Your task to perform on an android device: Go to privacy settings Image 0: 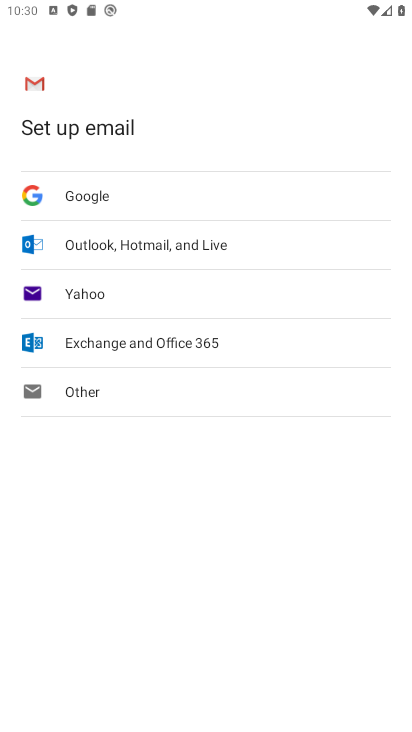
Step 0: press home button
Your task to perform on an android device: Go to privacy settings Image 1: 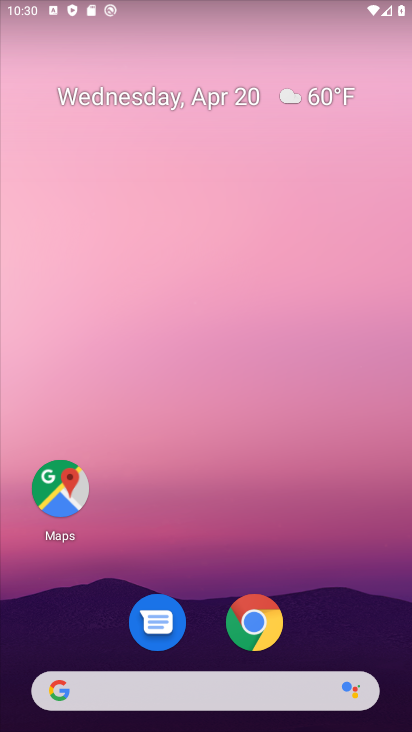
Step 1: drag from (386, 593) to (373, 48)
Your task to perform on an android device: Go to privacy settings Image 2: 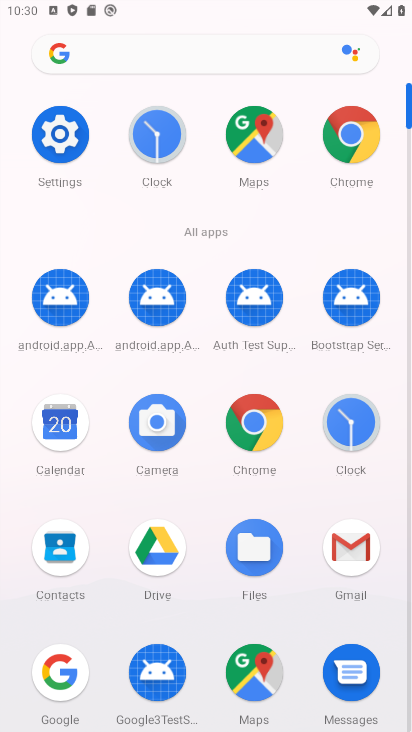
Step 2: click (67, 136)
Your task to perform on an android device: Go to privacy settings Image 3: 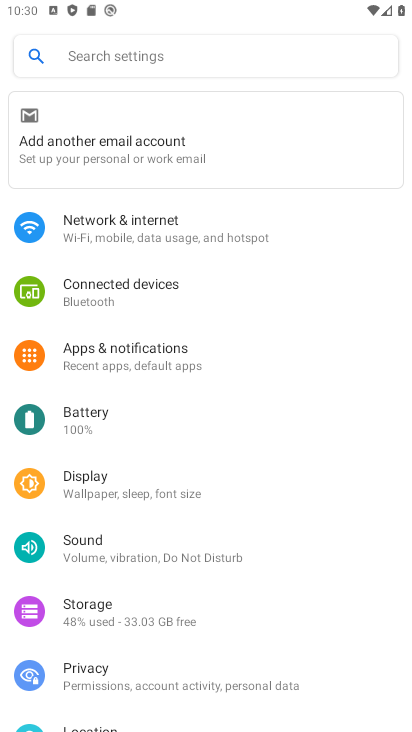
Step 3: drag from (181, 596) to (227, 285)
Your task to perform on an android device: Go to privacy settings Image 4: 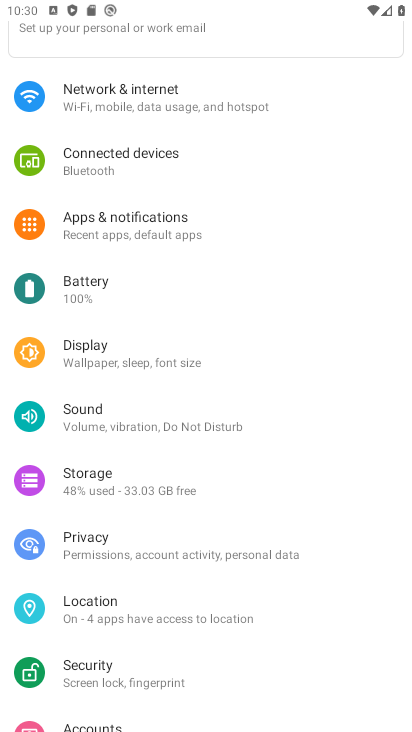
Step 4: click (123, 546)
Your task to perform on an android device: Go to privacy settings Image 5: 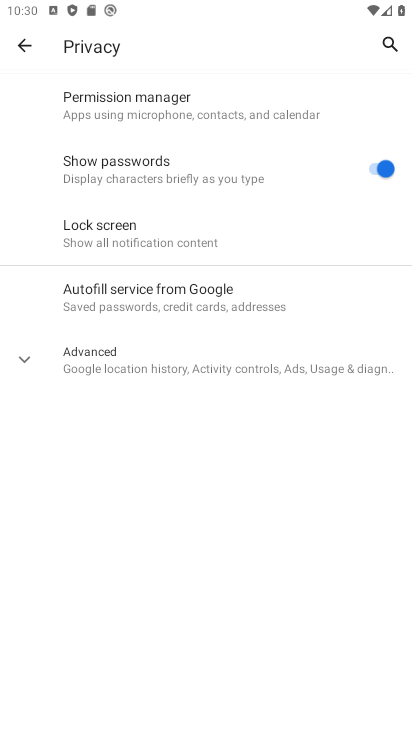
Step 5: task complete